Your task to perform on an android device: Search for razer blade on amazon.com, select the first entry, and add it to the cart. Image 0: 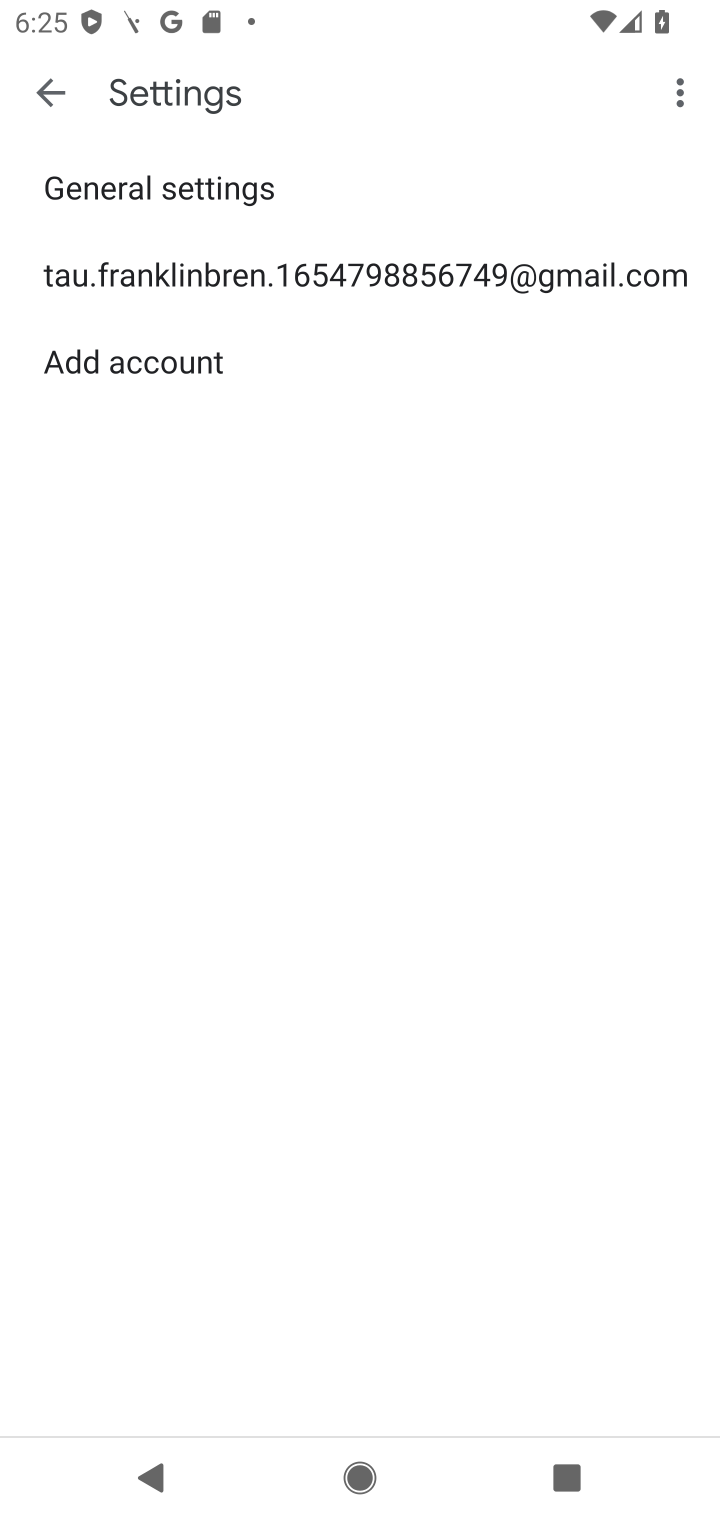
Step 0: press home button
Your task to perform on an android device: Search for razer blade on amazon.com, select the first entry, and add it to the cart. Image 1: 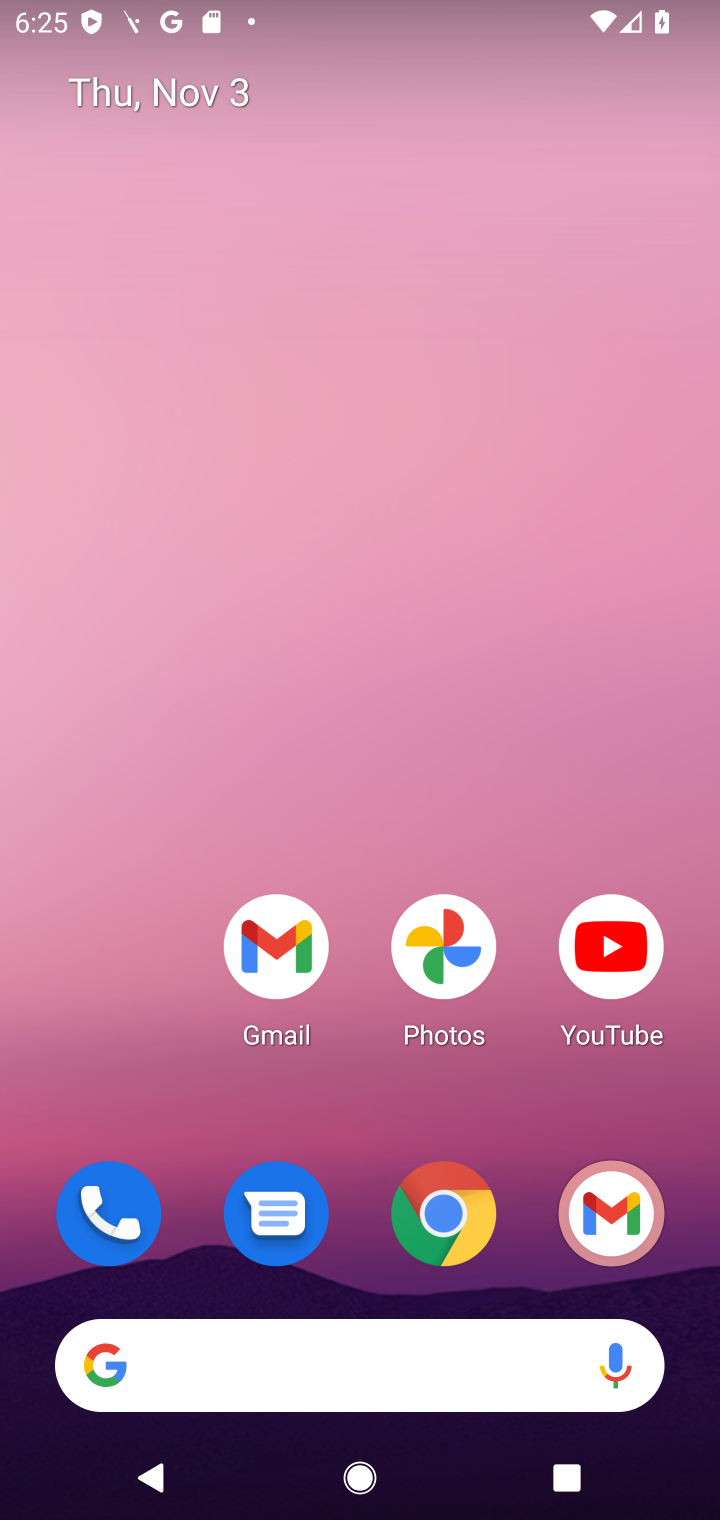
Step 1: click (447, 1218)
Your task to perform on an android device: Search for razer blade on amazon.com, select the first entry, and add it to the cart. Image 2: 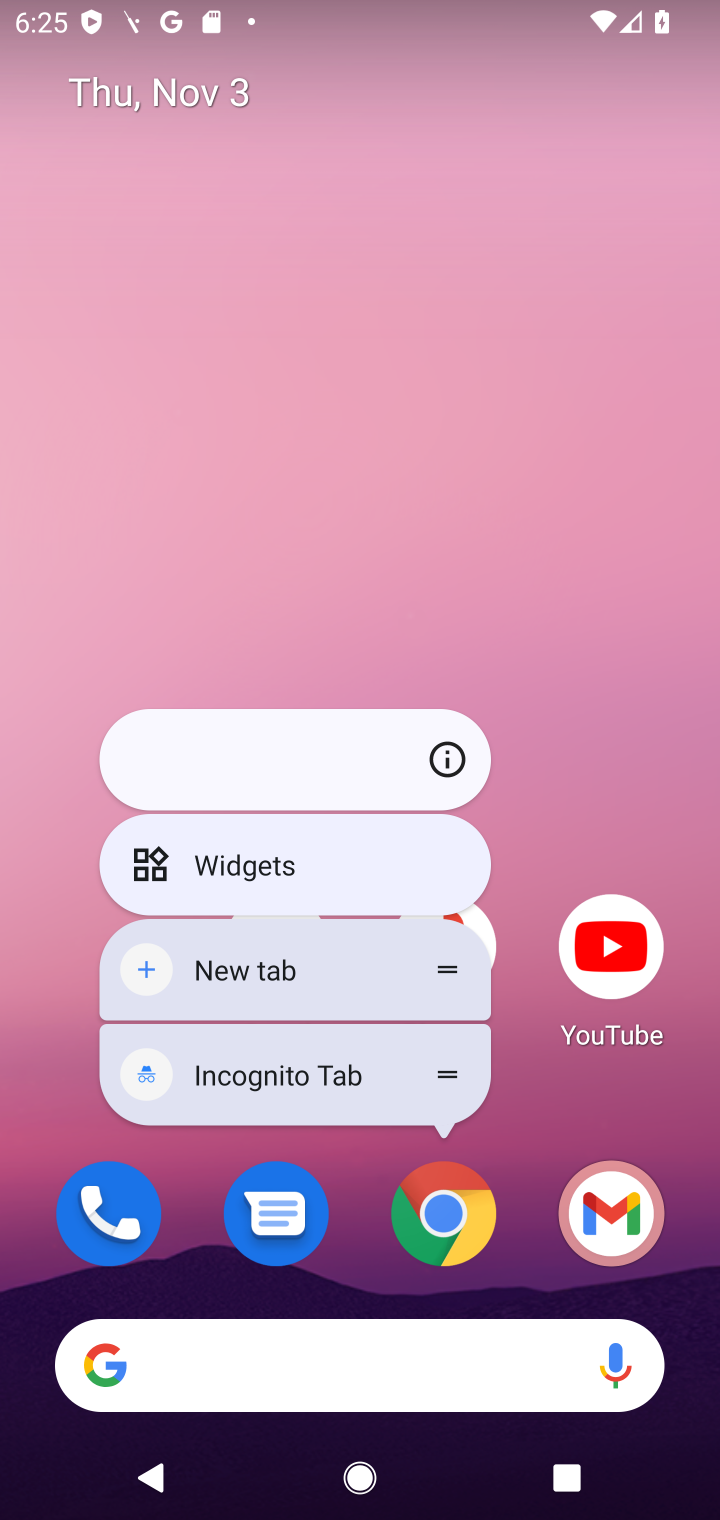
Step 2: click (447, 1218)
Your task to perform on an android device: Search for razer blade on amazon.com, select the first entry, and add it to the cart. Image 3: 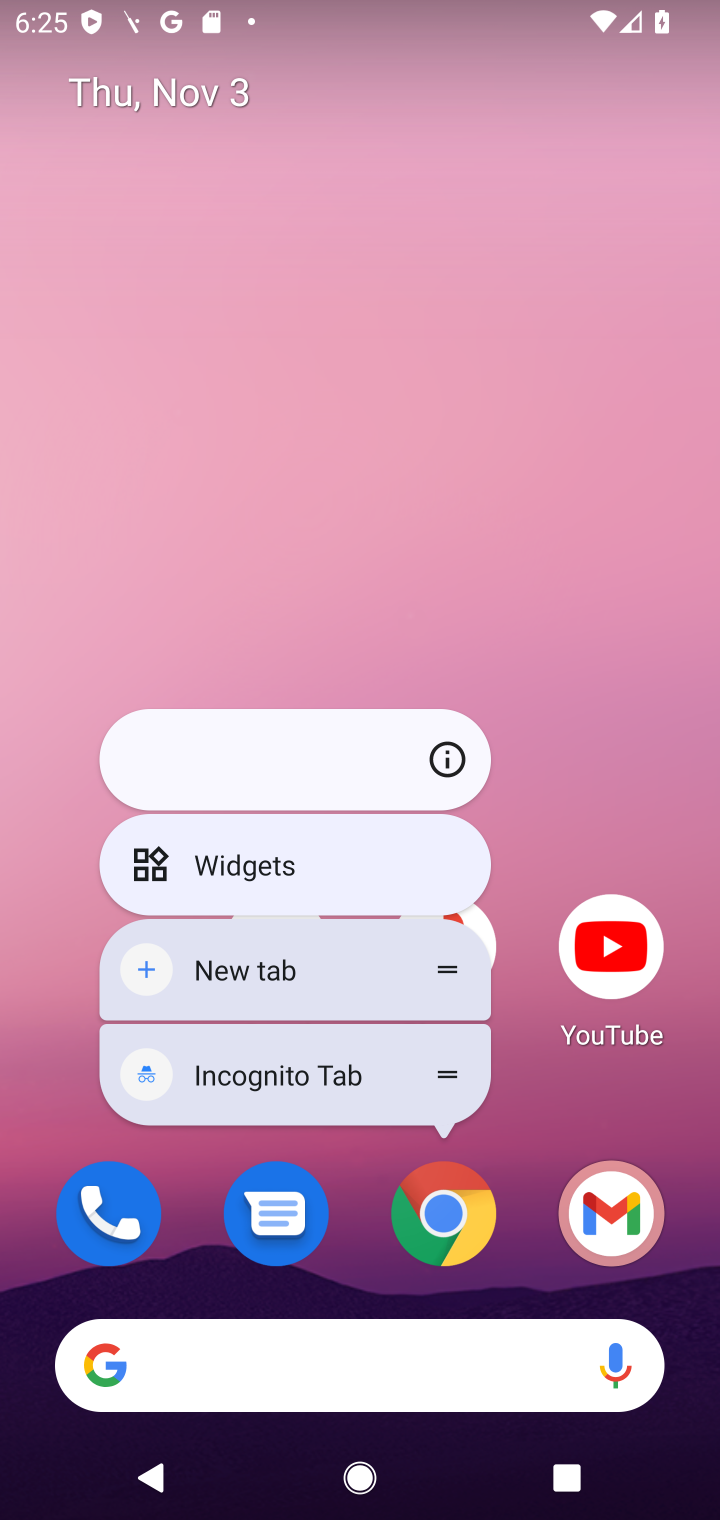
Step 3: click (447, 1218)
Your task to perform on an android device: Search for razer blade on amazon.com, select the first entry, and add it to the cart. Image 4: 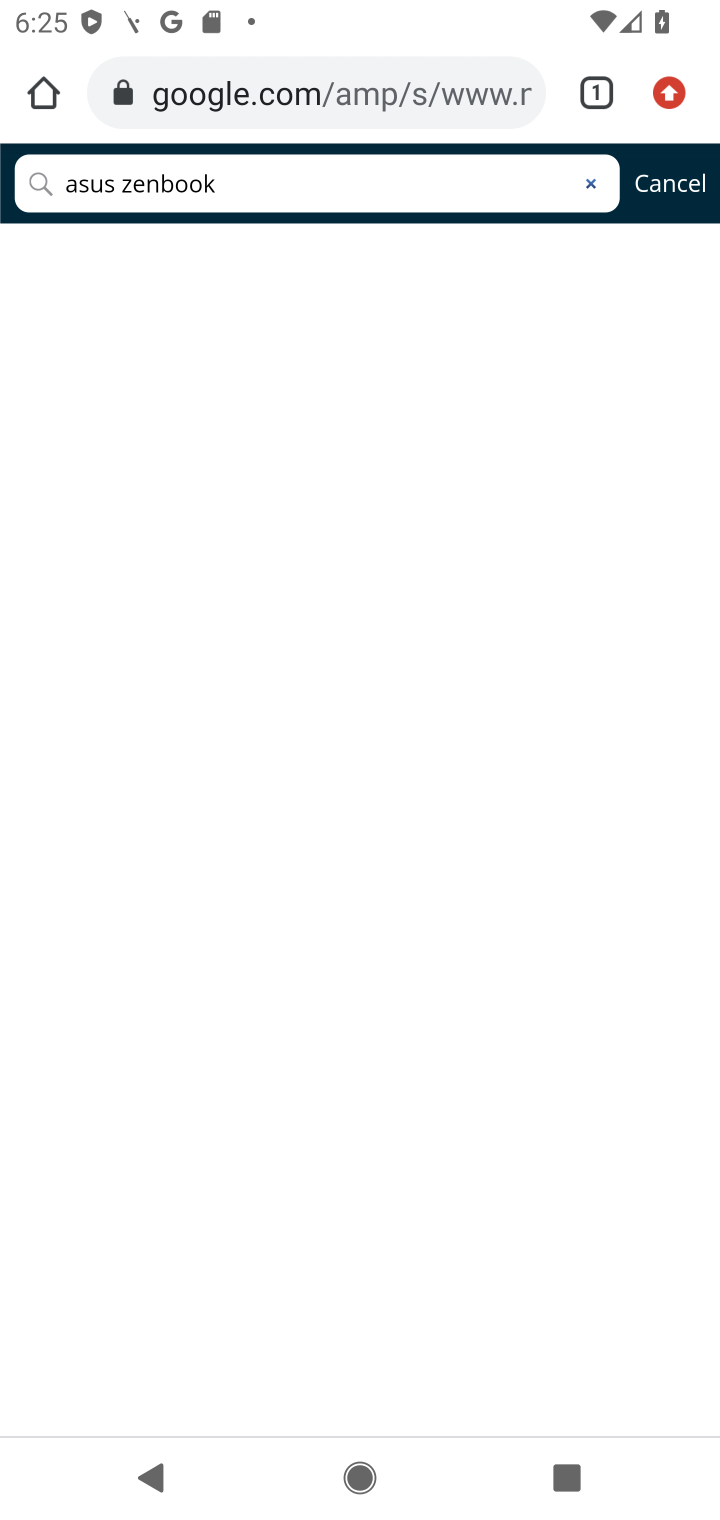
Step 4: click (265, 93)
Your task to perform on an android device: Search for razer blade on amazon.com, select the first entry, and add it to the cart. Image 5: 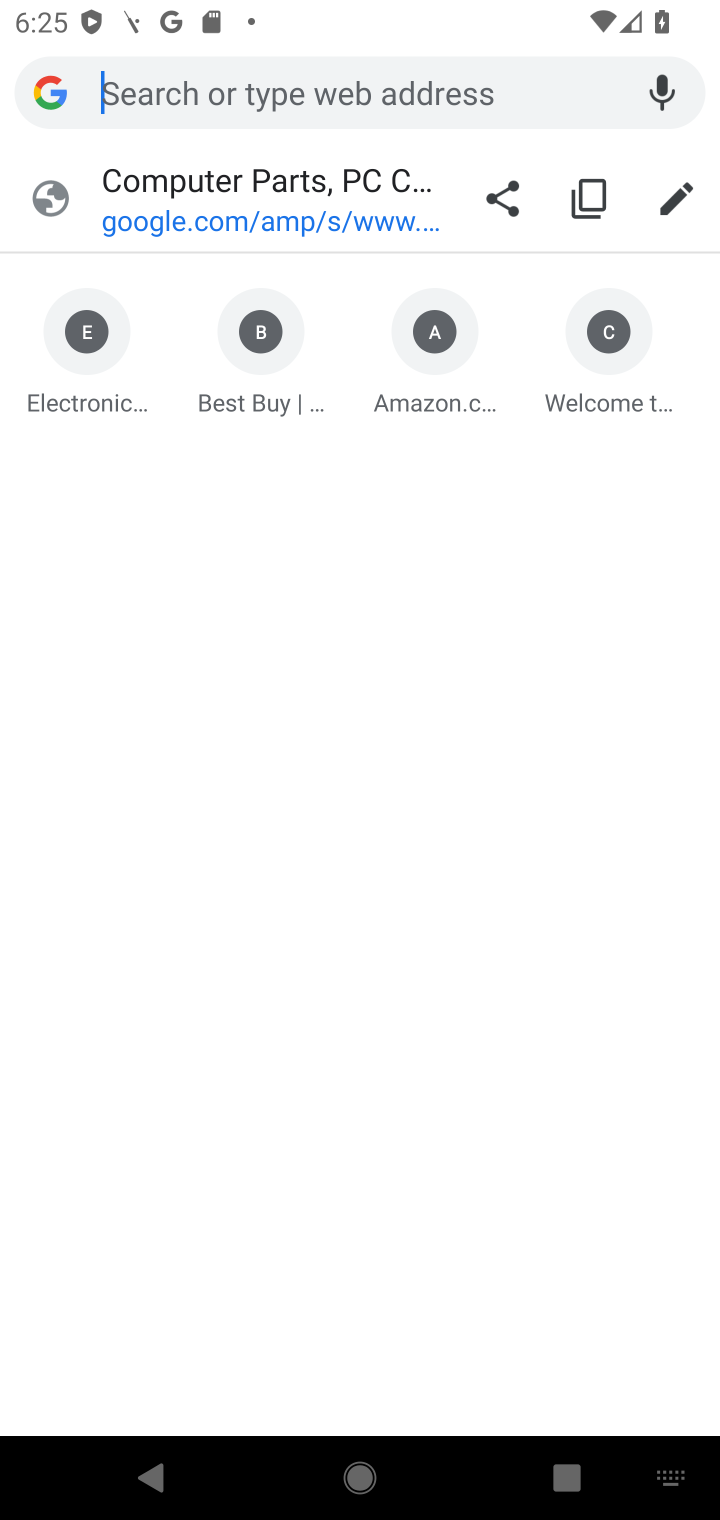
Step 5: click (431, 377)
Your task to perform on an android device: Search for razer blade on amazon.com, select the first entry, and add it to the cart. Image 6: 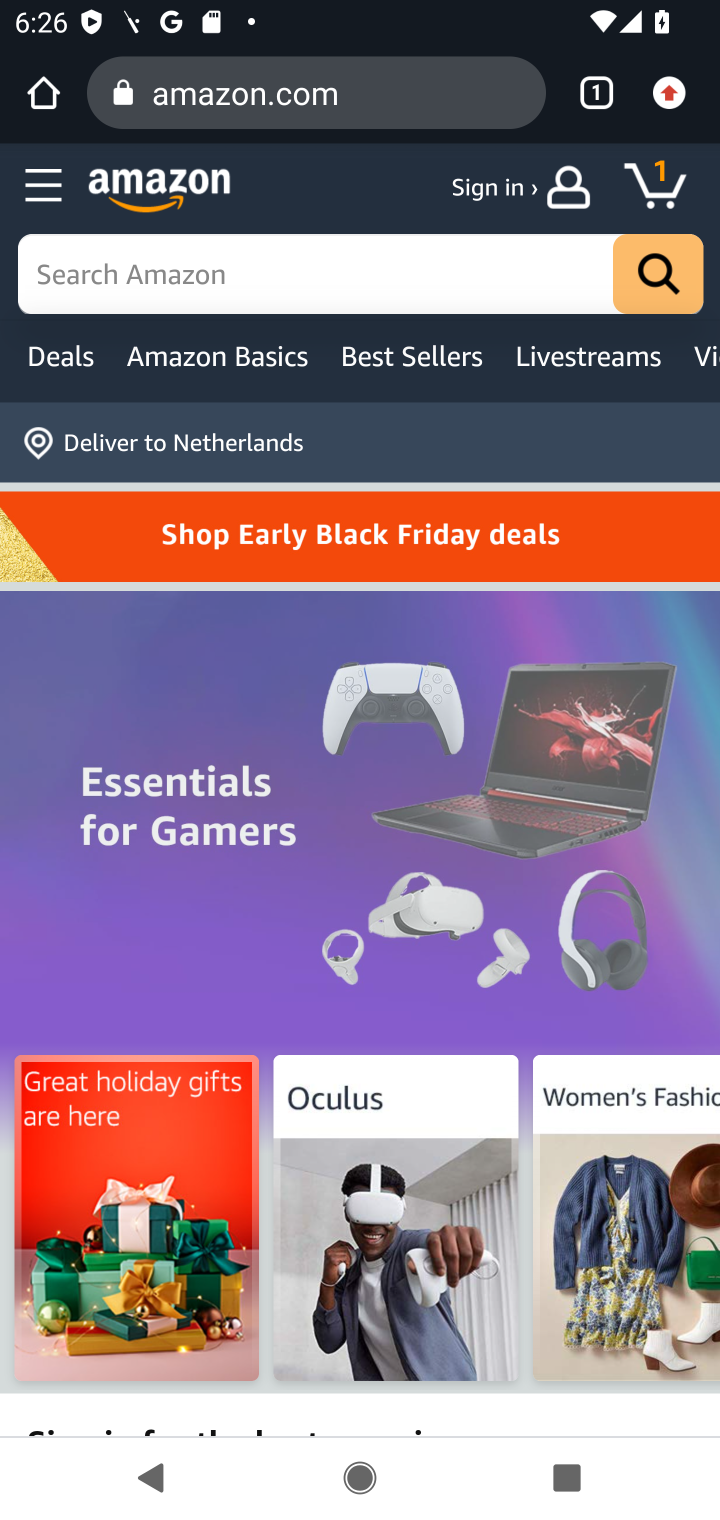
Step 6: click (95, 265)
Your task to perform on an android device: Search for razer blade on amazon.com, select the first entry, and add it to the cart. Image 7: 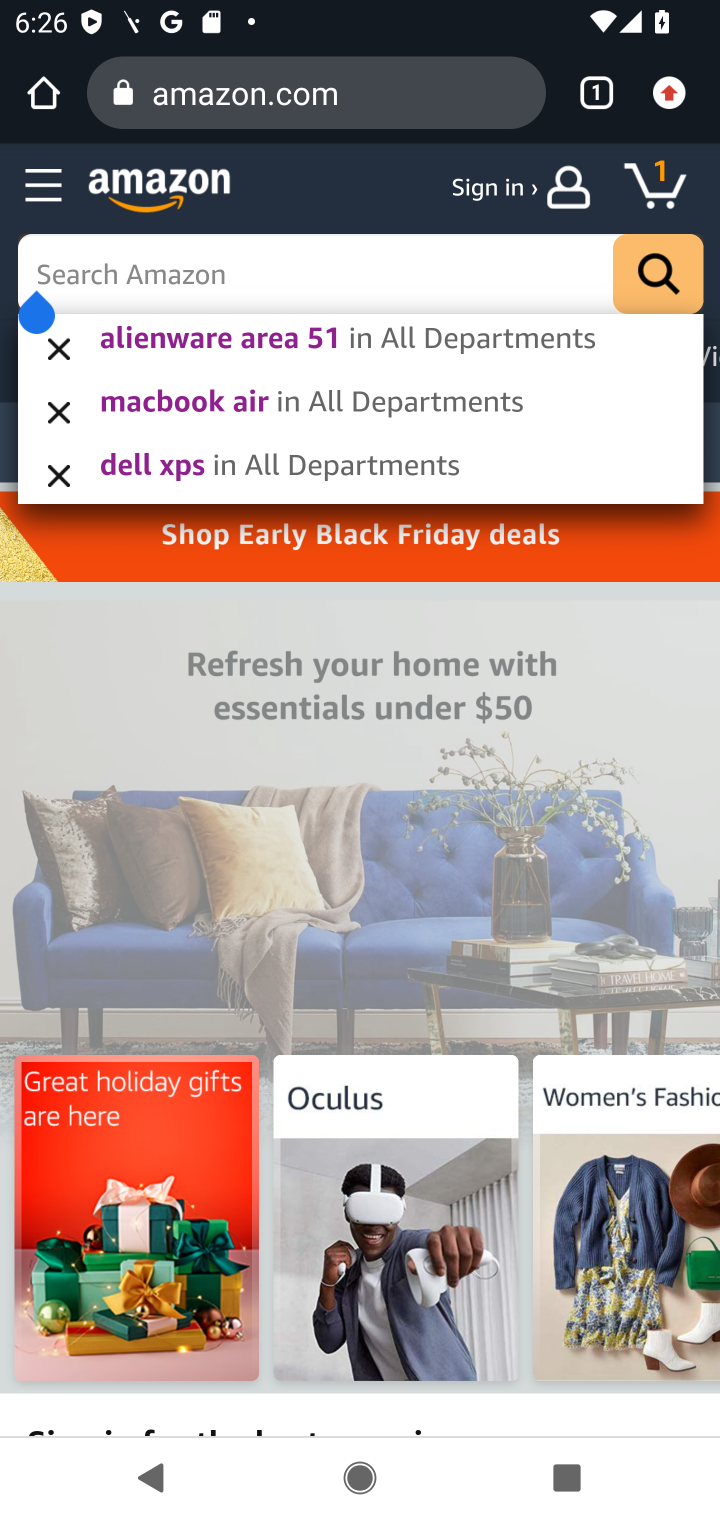
Step 7: type "razer blade"
Your task to perform on an android device: Search for razer blade on amazon.com, select the first entry, and add it to the cart. Image 8: 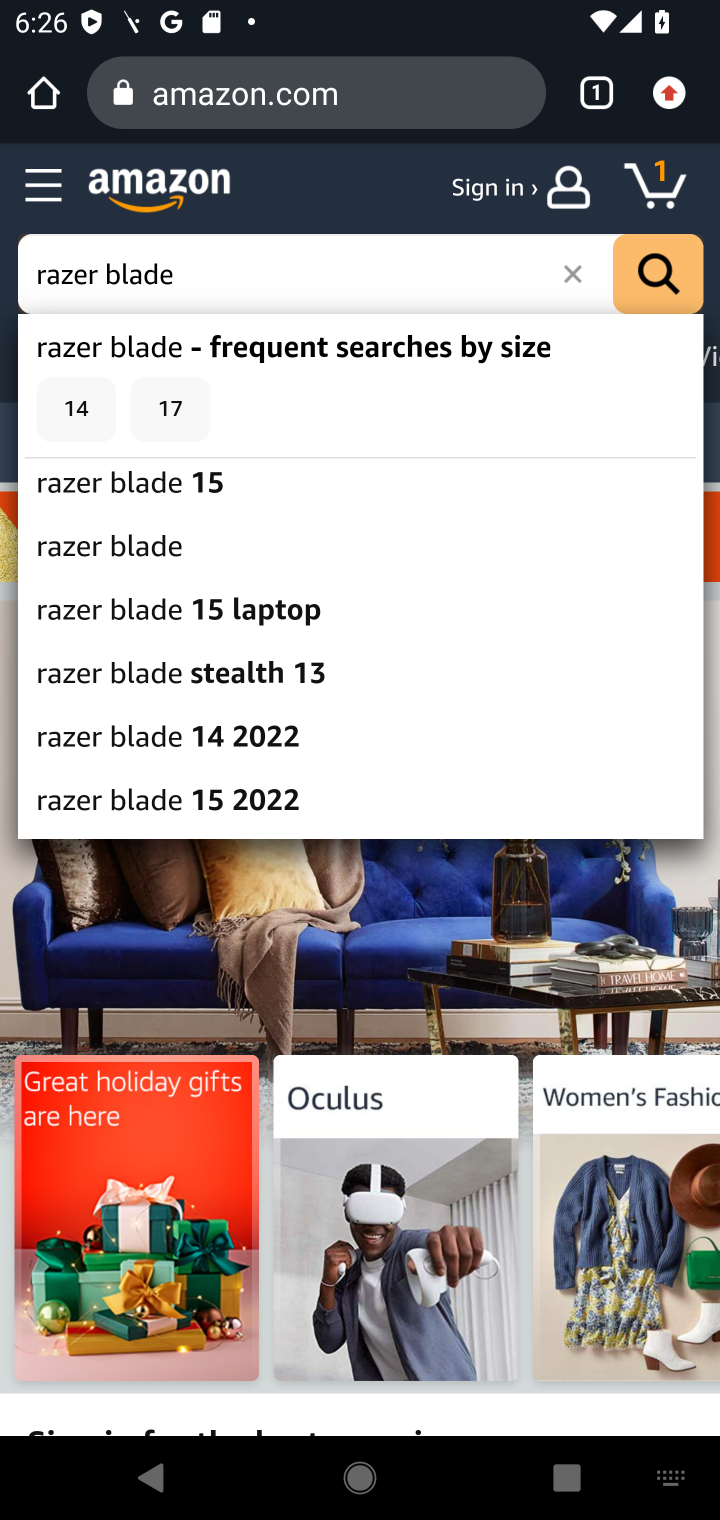
Step 8: click (152, 552)
Your task to perform on an android device: Search for razer blade on amazon.com, select the first entry, and add it to the cart. Image 9: 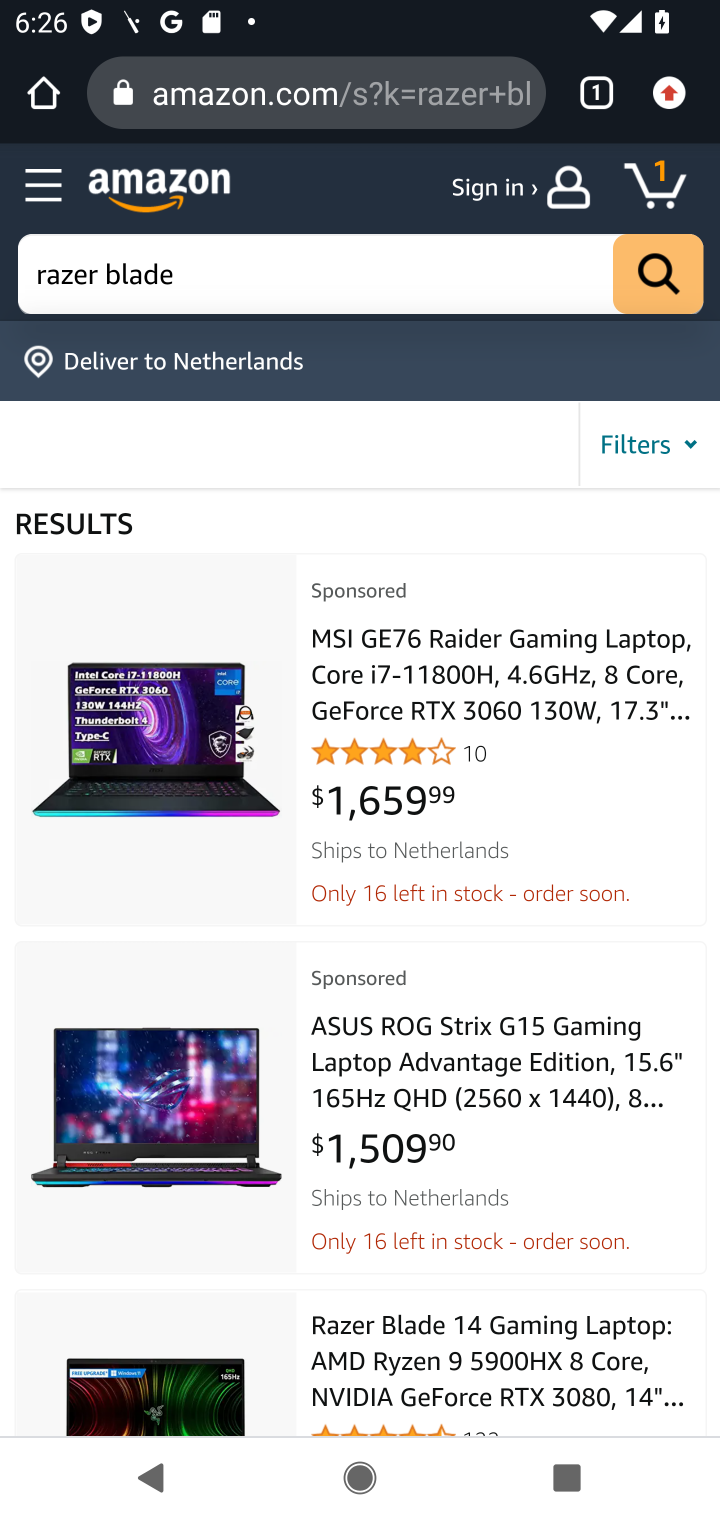
Step 9: click (215, 738)
Your task to perform on an android device: Search for razer blade on amazon.com, select the first entry, and add it to the cart. Image 10: 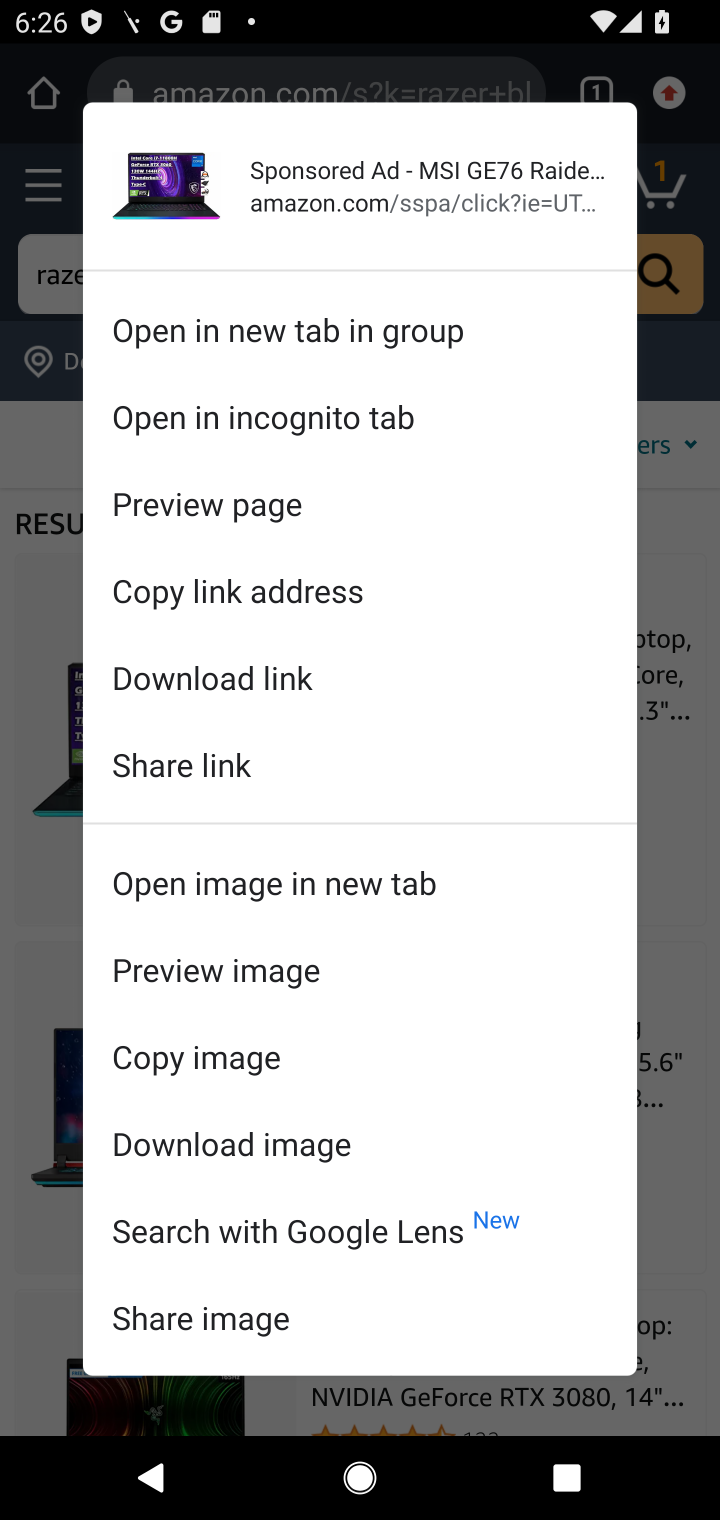
Step 10: click (709, 774)
Your task to perform on an android device: Search for razer blade on amazon.com, select the first entry, and add it to the cart. Image 11: 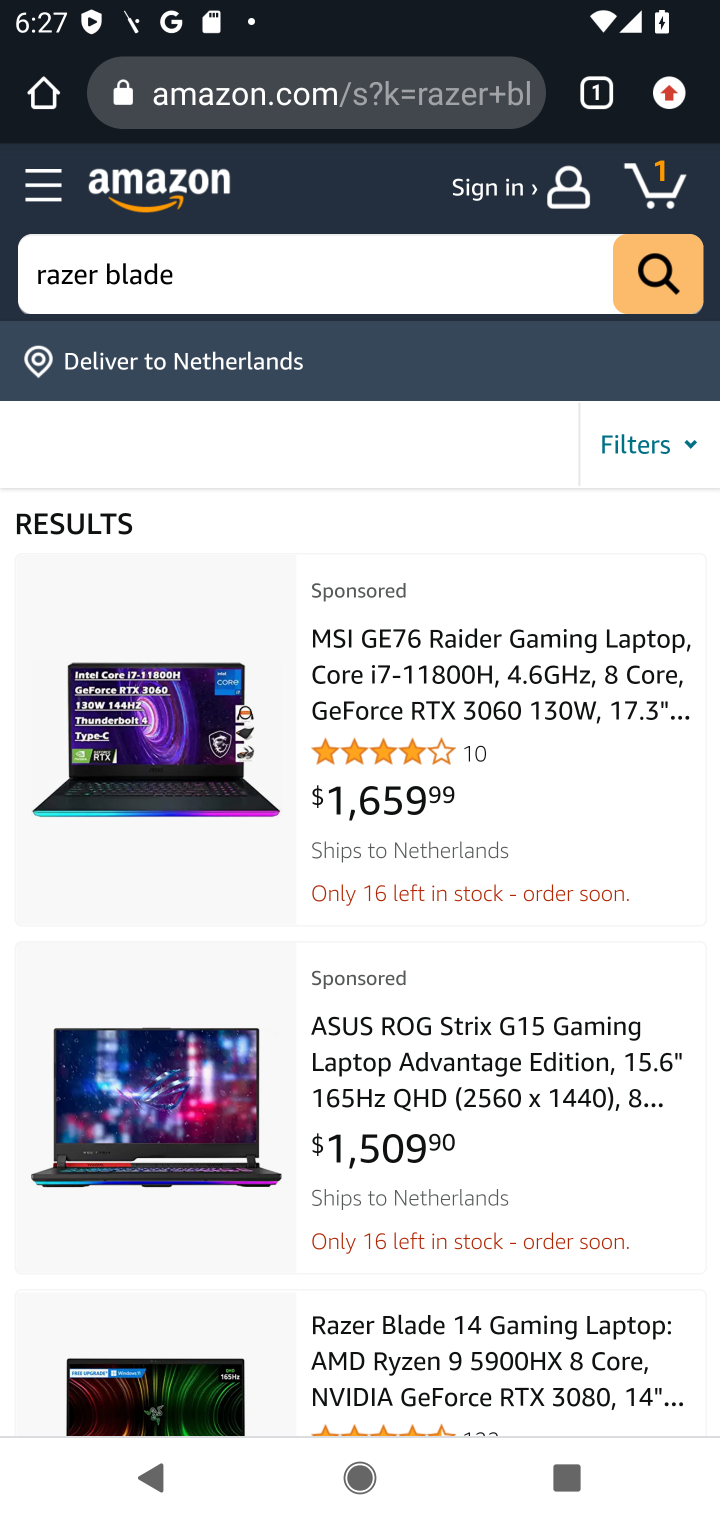
Step 11: click (297, 729)
Your task to perform on an android device: Search for razer blade on amazon.com, select the first entry, and add it to the cart. Image 12: 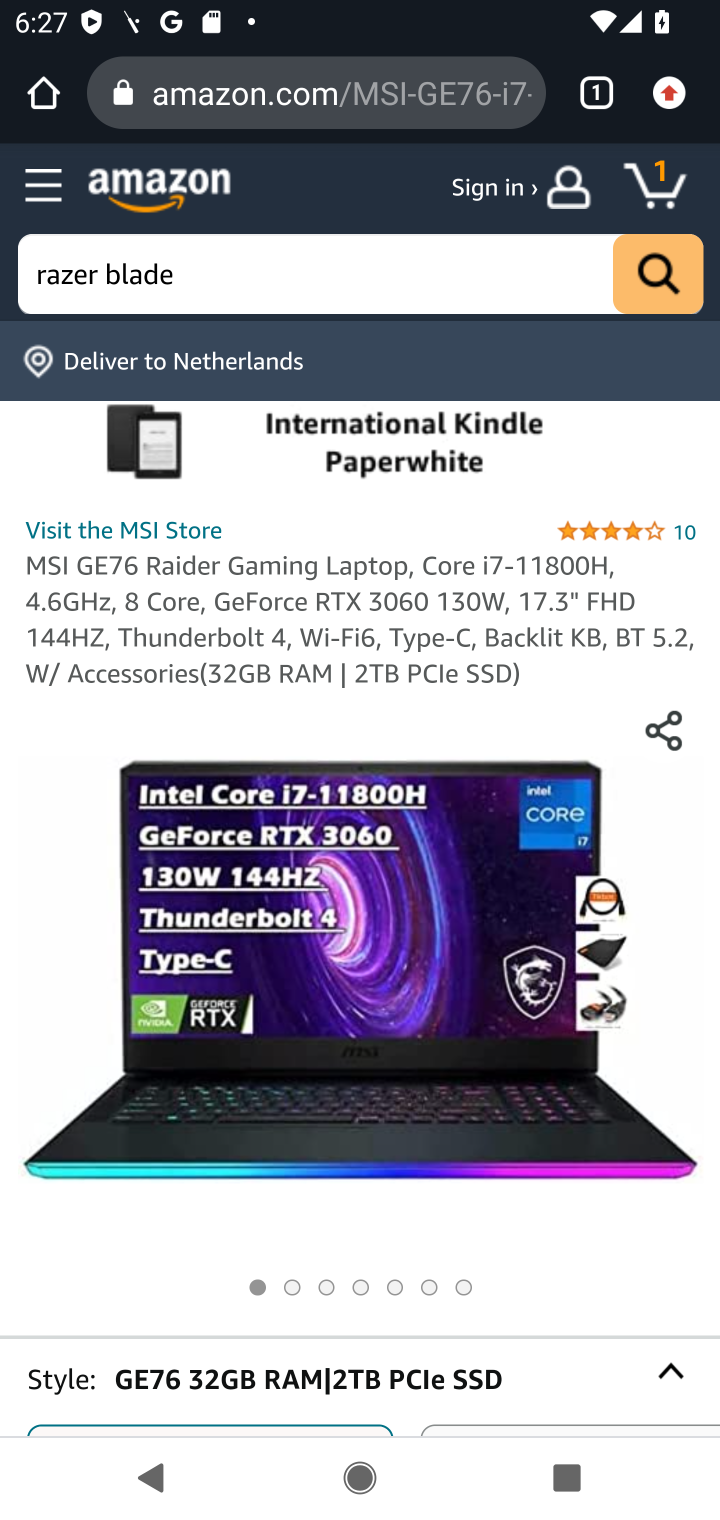
Step 12: task complete